Your task to perform on an android device: clear history in the chrome app Image 0: 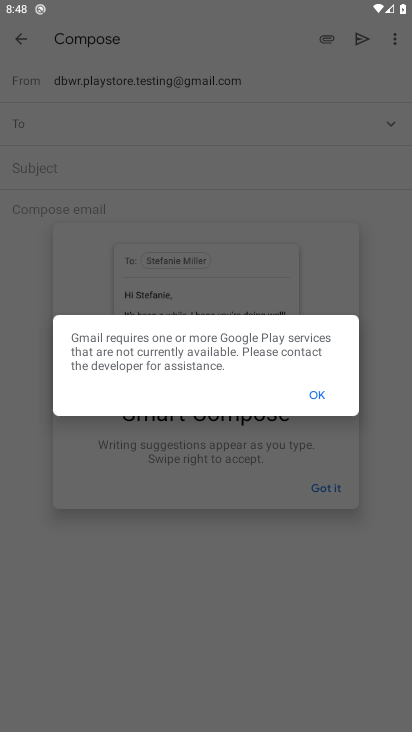
Step 0: press home button
Your task to perform on an android device: clear history in the chrome app Image 1: 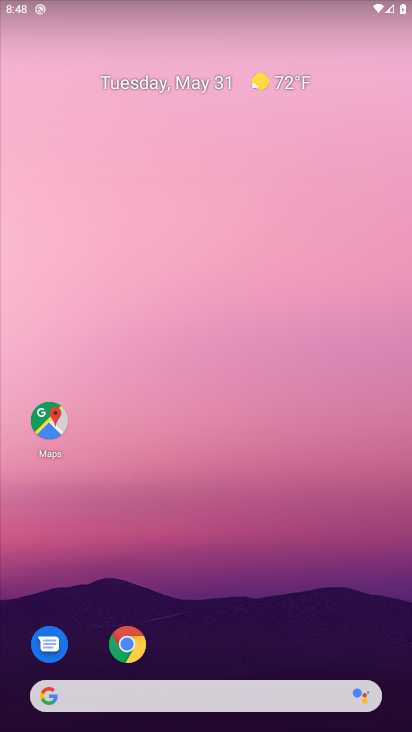
Step 1: click (129, 642)
Your task to perform on an android device: clear history in the chrome app Image 2: 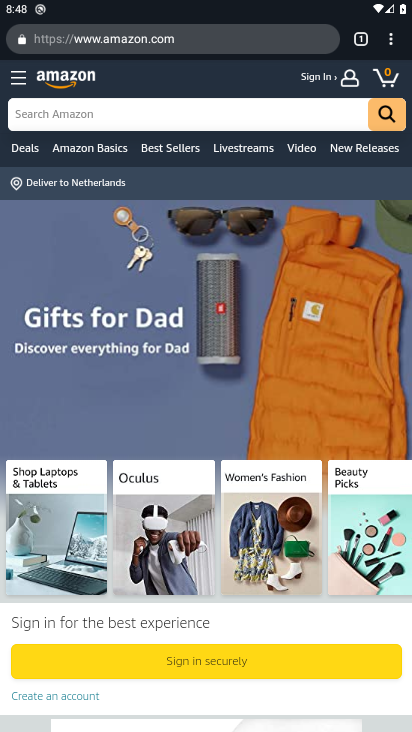
Step 2: click (391, 35)
Your task to perform on an android device: clear history in the chrome app Image 3: 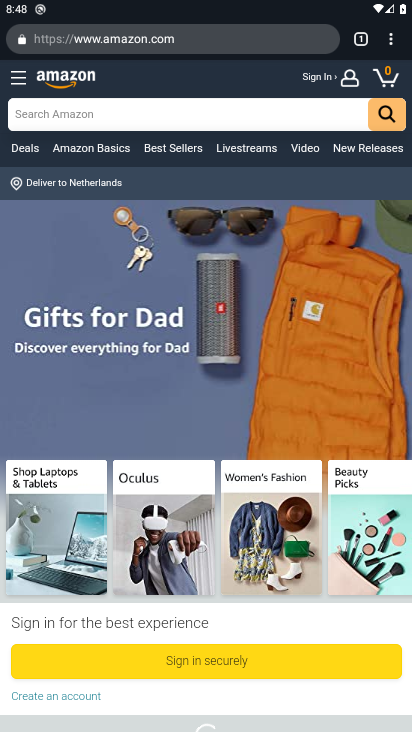
Step 3: click (391, 35)
Your task to perform on an android device: clear history in the chrome app Image 4: 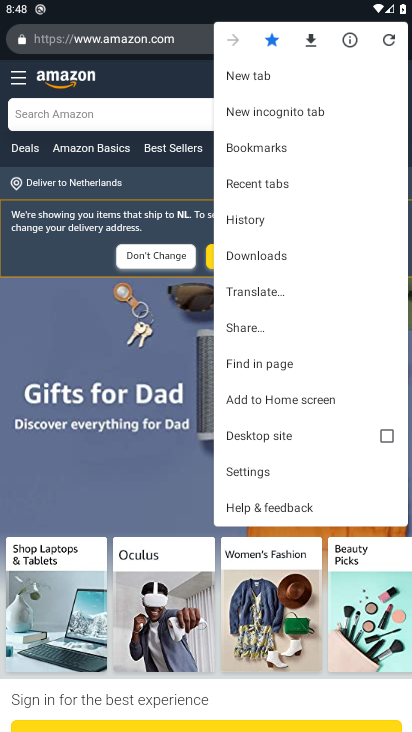
Step 4: click (261, 218)
Your task to perform on an android device: clear history in the chrome app Image 5: 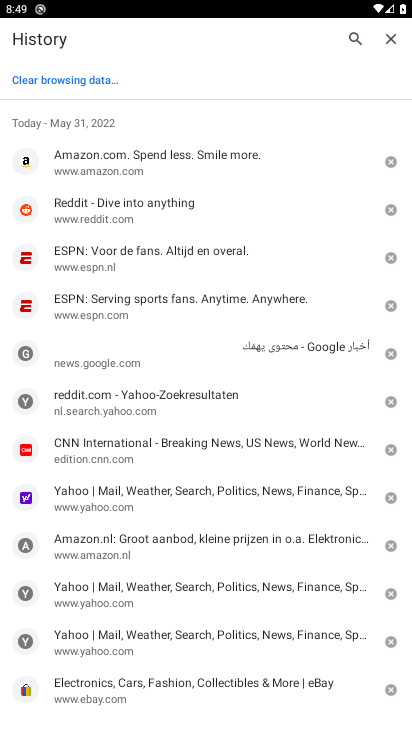
Step 5: click (75, 79)
Your task to perform on an android device: clear history in the chrome app Image 6: 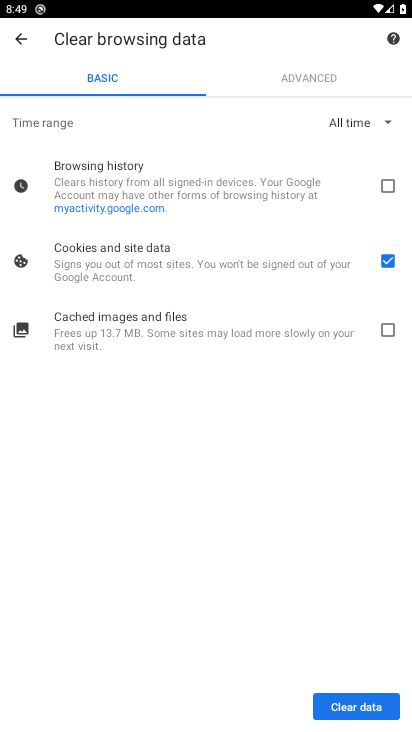
Step 6: click (390, 178)
Your task to perform on an android device: clear history in the chrome app Image 7: 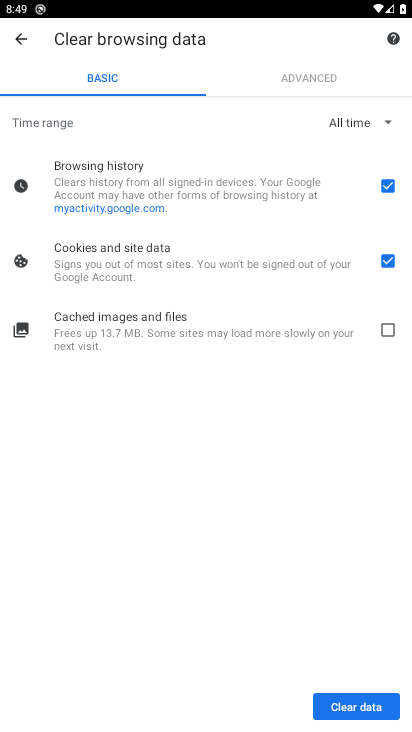
Step 7: click (384, 326)
Your task to perform on an android device: clear history in the chrome app Image 8: 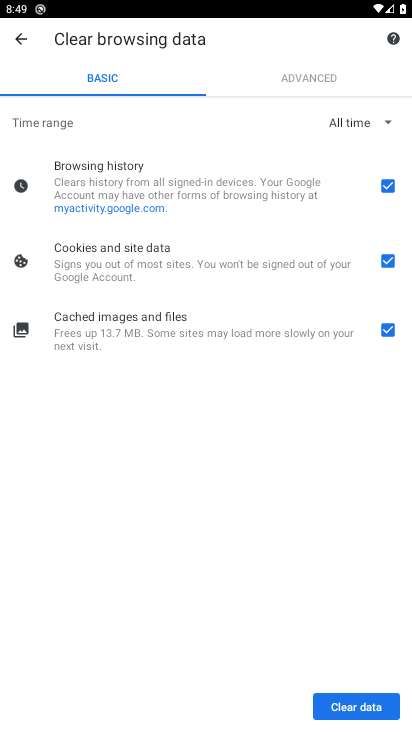
Step 8: click (360, 707)
Your task to perform on an android device: clear history in the chrome app Image 9: 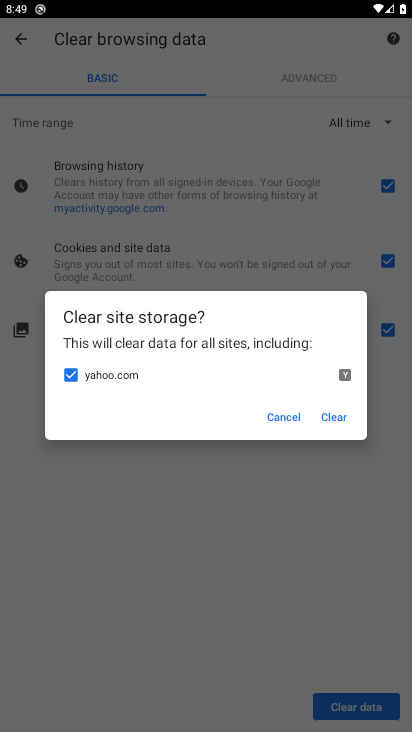
Step 9: click (333, 413)
Your task to perform on an android device: clear history in the chrome app Image 10: 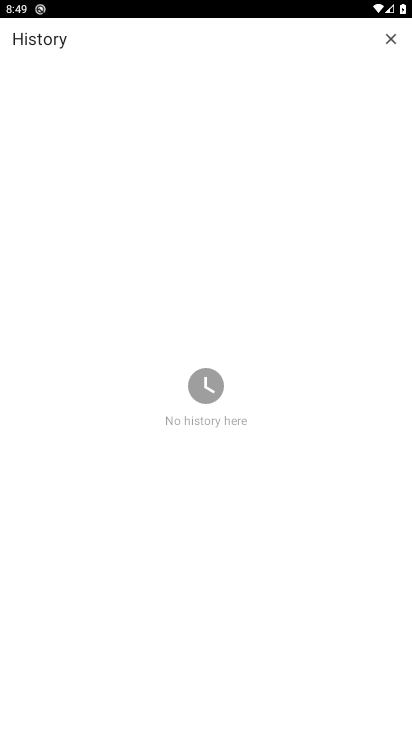
Step 10: task complete